Your task to perform on an android device: uninstall "TextNow: Call + Text Unlimited" Image 0: 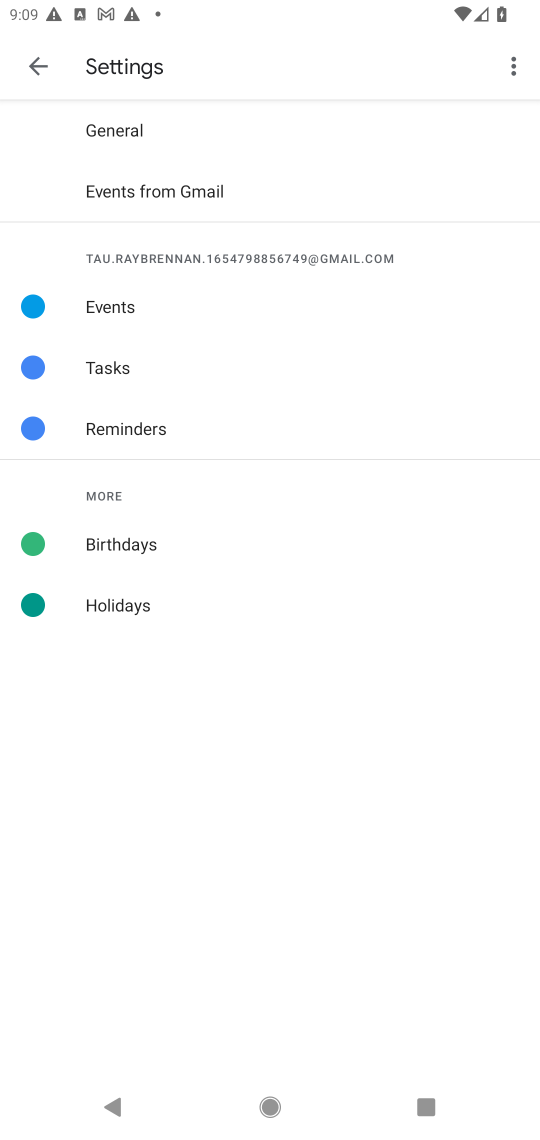
Step 0: press home button
Your task to perform on an android device: uninstall "TextNow: Call + Text Unlimited" Image 1: 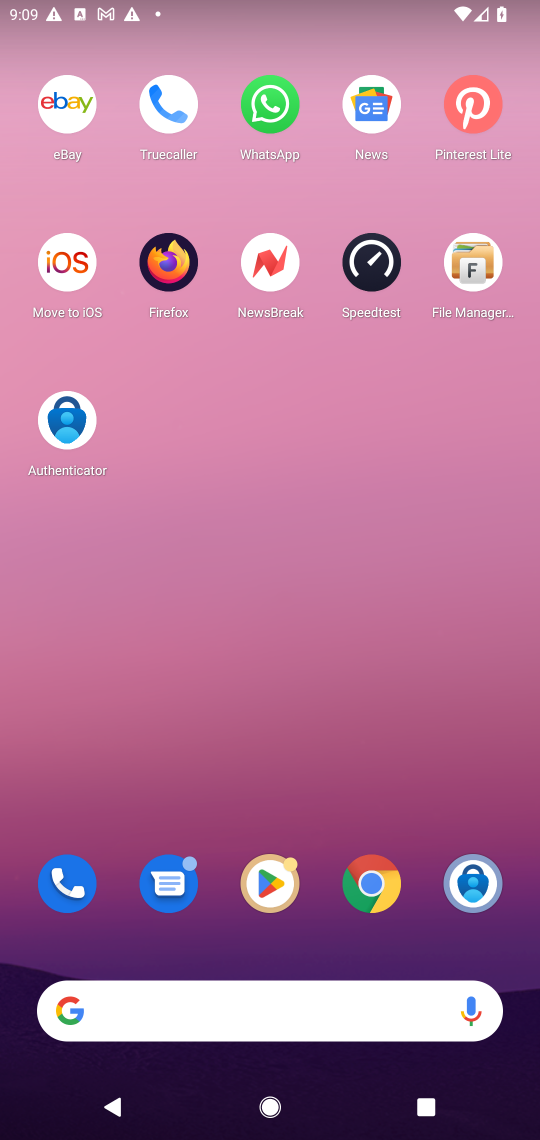
Step 1: click (267, 879)
Your task to perform on an android device: uninstall "TextNow: Call + Text Unlimited" Image 2: 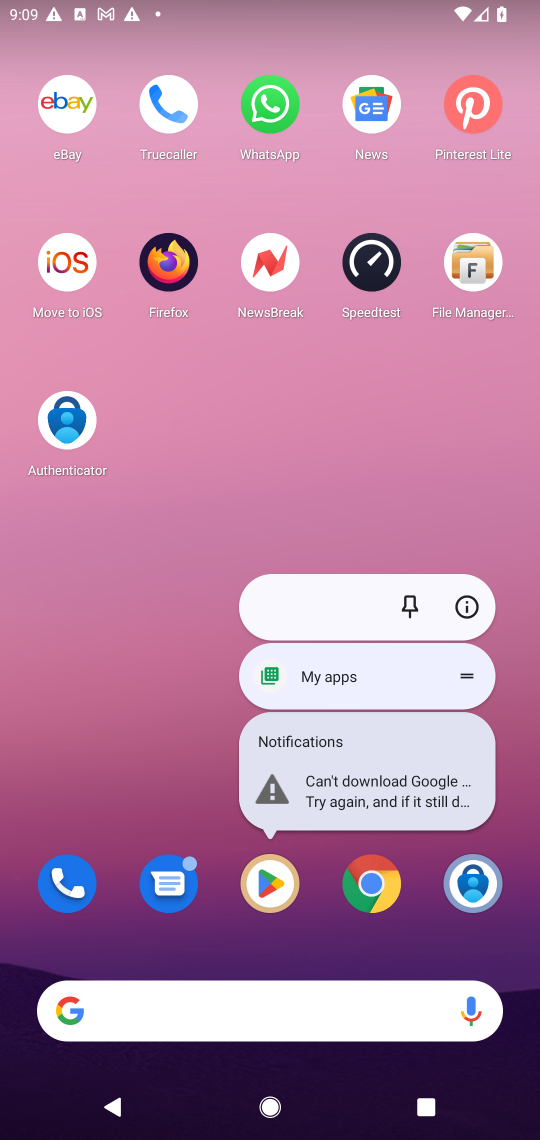
Step 2: click (265, 905)
Your task to perform on an android device: uninstall "TextNow: Call + Text Unlimited" Image 3: 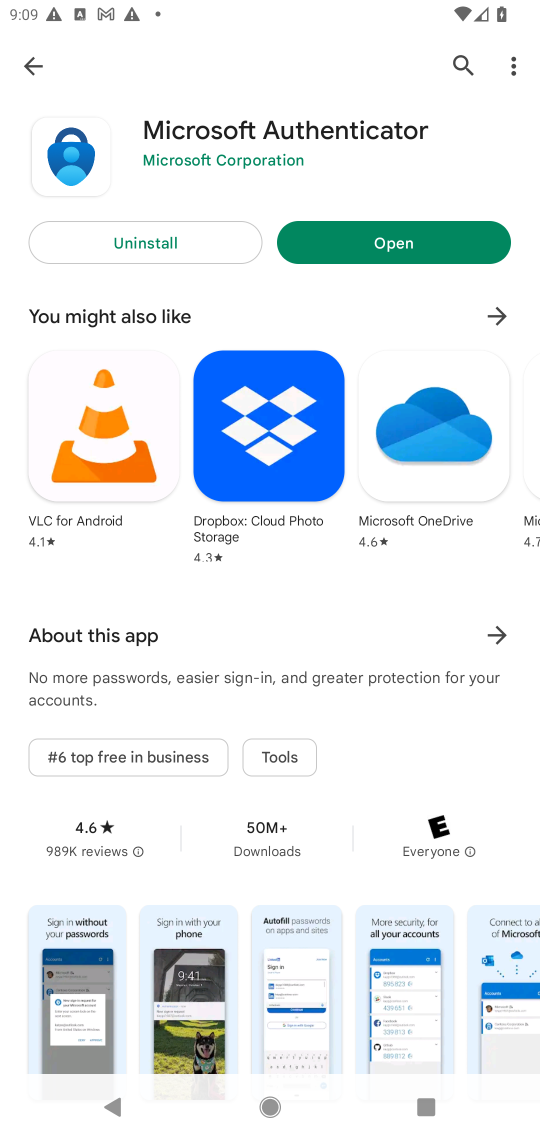
Step 3: click (448, 63)
Your task to perform on an android device: uninstall "TextNow: Call + Text Unlimited" Image 4: 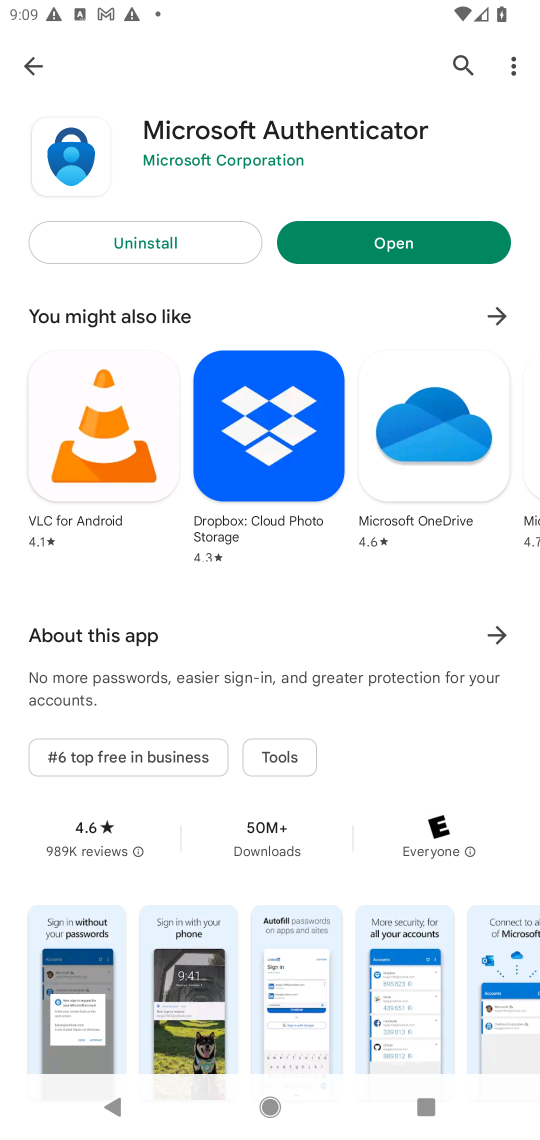
Step 4: click (448, 63)
Your task to perform on an android device: uninstall "TextNow: Call + Text Unlimited" Image 5: 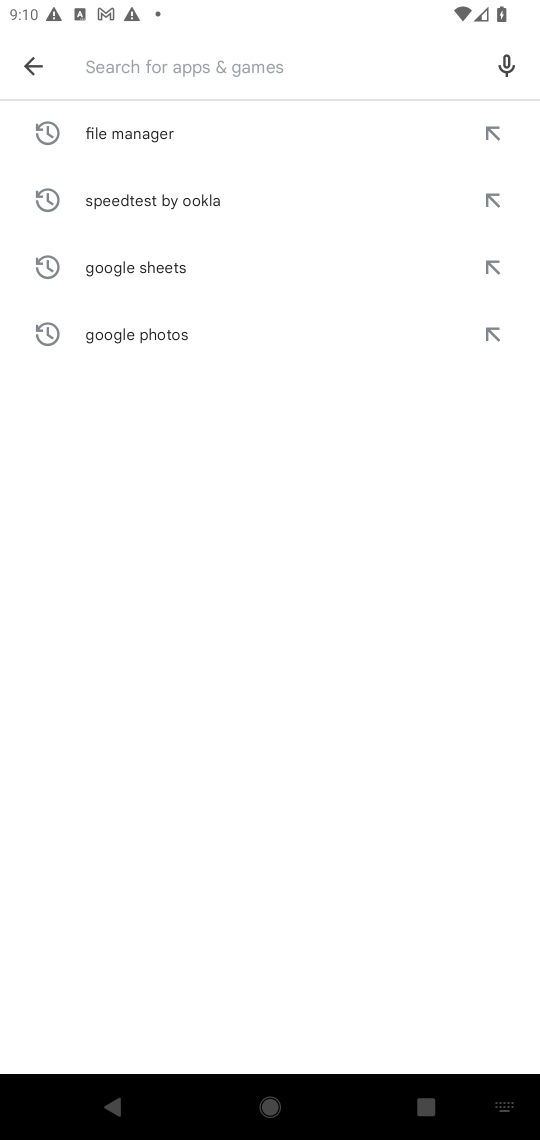
Step 5: type "TextNow: Call + Text Unlimited"
Your task to perform on an android device: uninstall "TextNow: Call + Text Unlimited" Image 6: 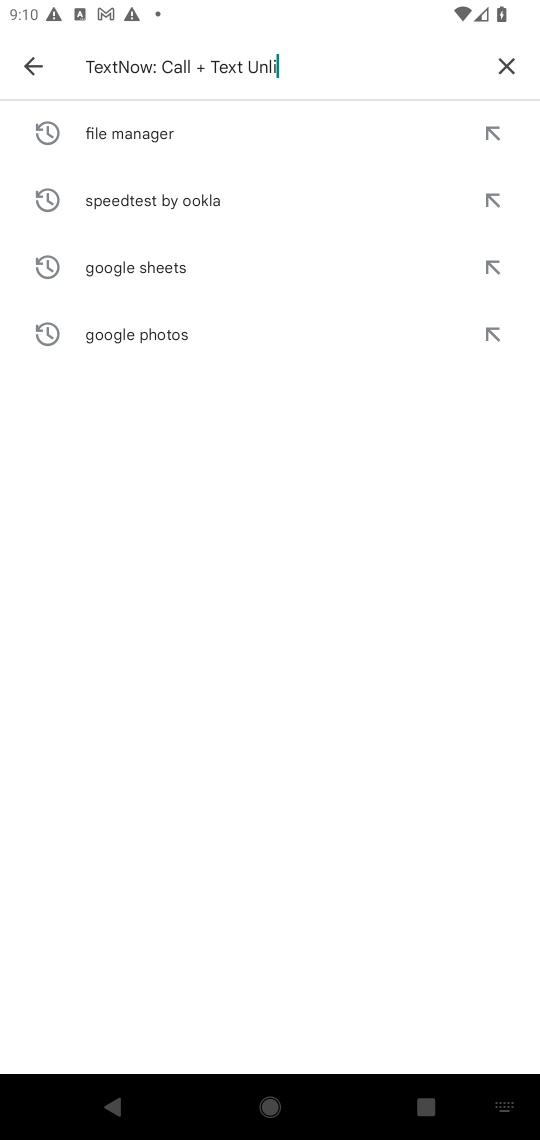
Step 6: type ""
Your task to perform on an android device: uninstall "TextNow: Call + Text Unlimited" Image 7: 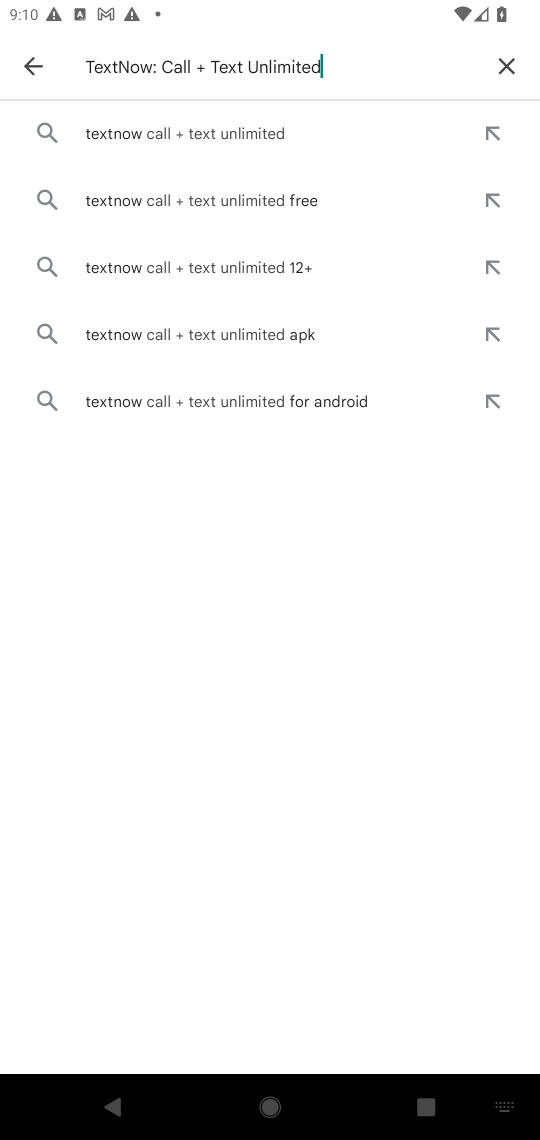
Step 7: click (211, 130)
Your task to perform on an android device: uninstall "TextNow: Call + Text Unlimited" Image 8: 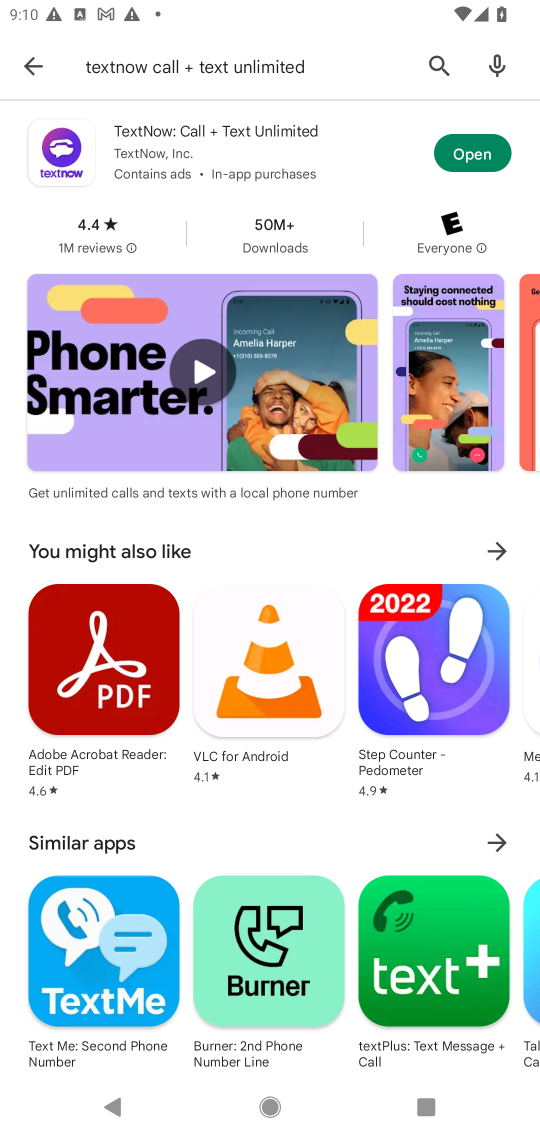
Step 8: click (275, 139)
Your task to perform on an android device: uninstall "TextNow: Call + Text Unlimited" Image 9: 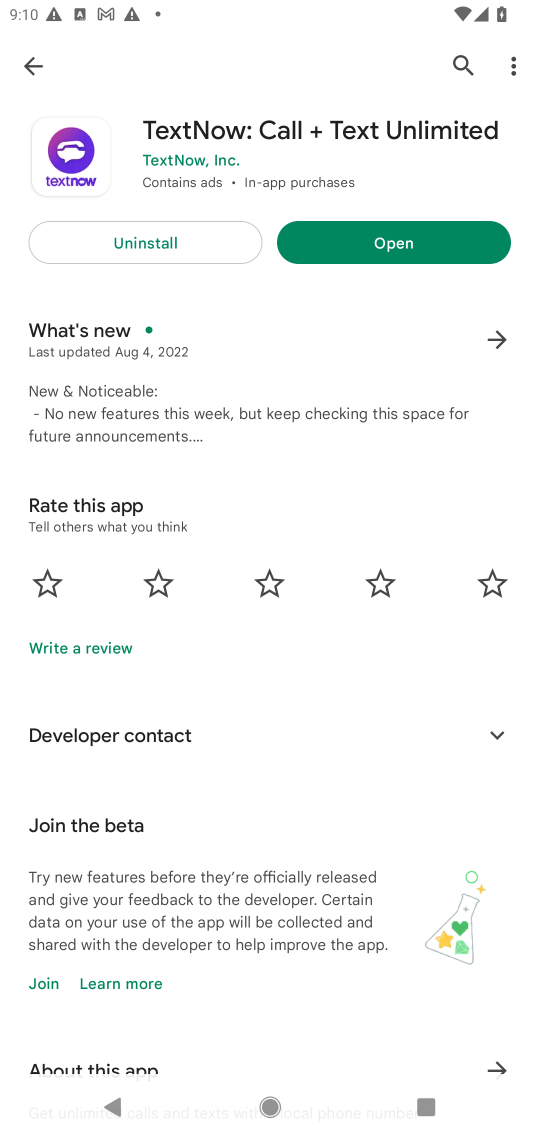
Step 9: click (192, 239)
Your task to perform on an android device: uninstall "TextNow: Call + Text Unlimited" Image 10: 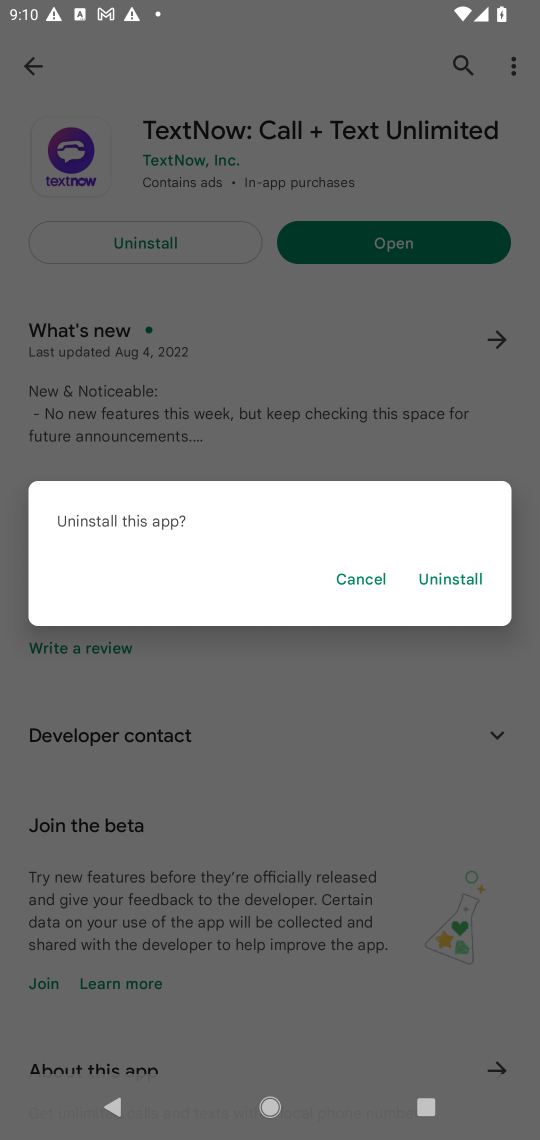
Step 10: click (468, 587)
Your task to perform on an android device: uninstall "TextNow: Call + Text Unlimited" Image 11: 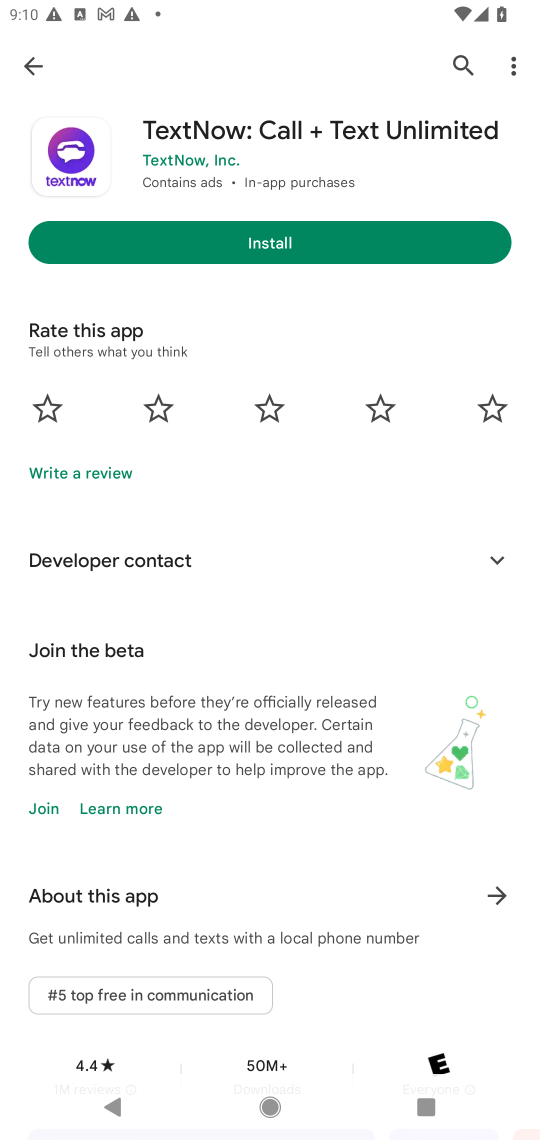
Step 11: task complete